Your task to perform on an android device: Open settings on Google Maps Image 0: 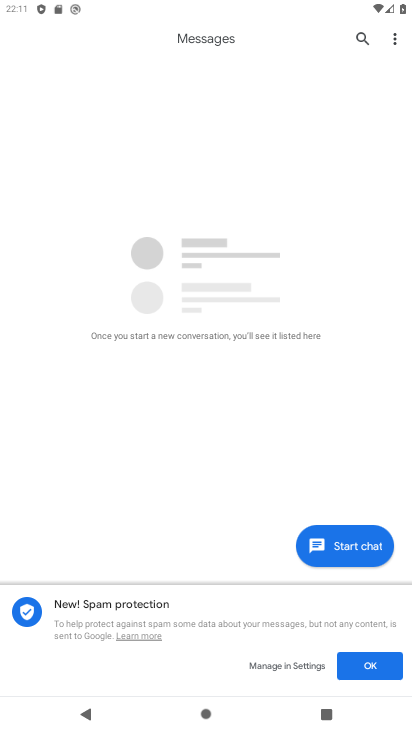
Step 0: press home button
Your task to perform on an android device: Open settings on Google Maps Image 1: 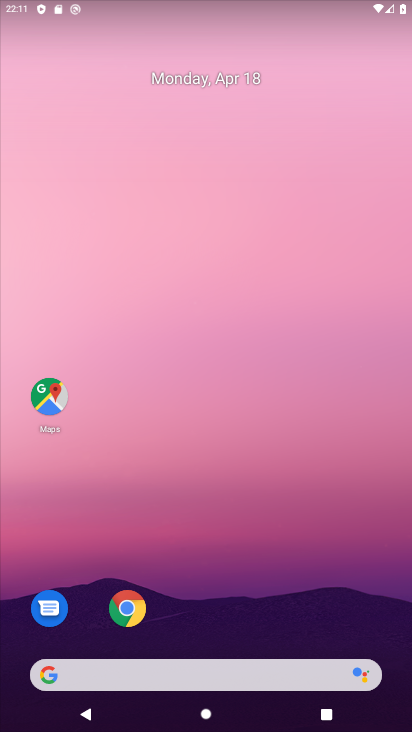
Step 1: click (50, 394)
Your task to perform on an android device: Open settings on Google Maps Image 2: 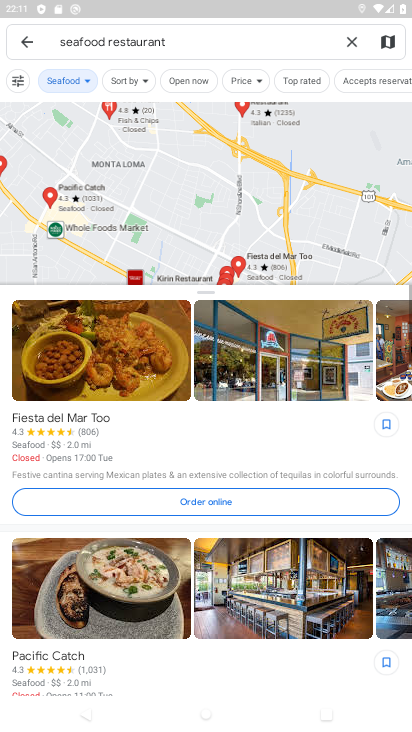
Step 2: click (351, 42)
Your task to perform on an android device: Open settings on Google Maps Image 3: 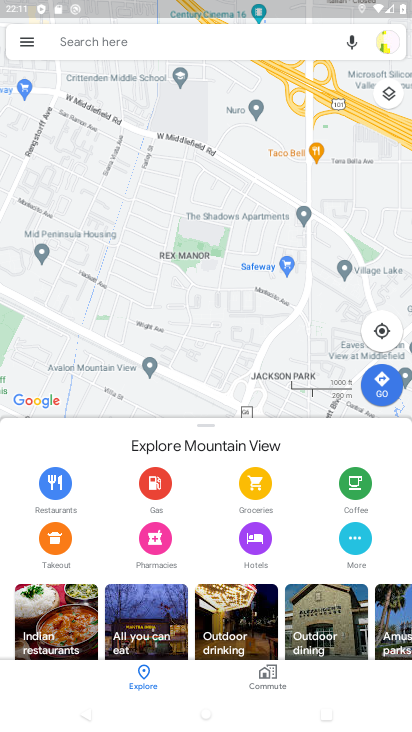
Step 3: click (23, 39)
Your task to perform on an android device: Open settings on Google Maps Image 4: 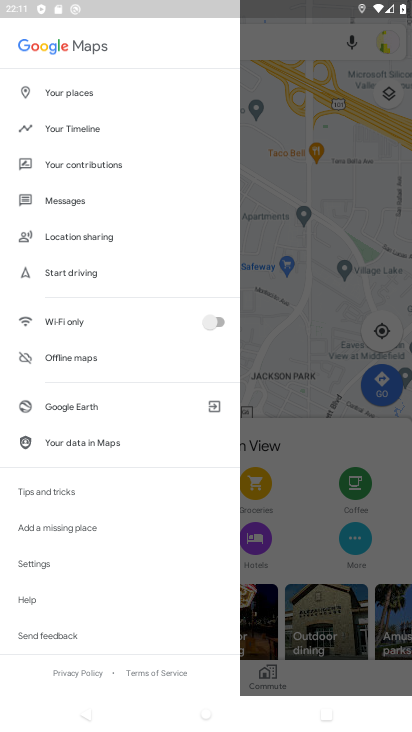
Step 4: click (38, 566)
Your task to perform on an android device: Open settings on Google Maps Image 5: 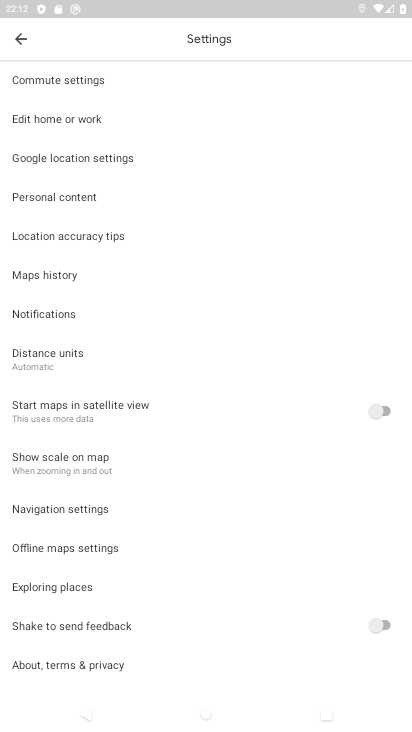
Step 5: task complete